Your task to perform on an android device: open app "Gmail" (install if not already installed), go to login, and select forgot password Image 0: 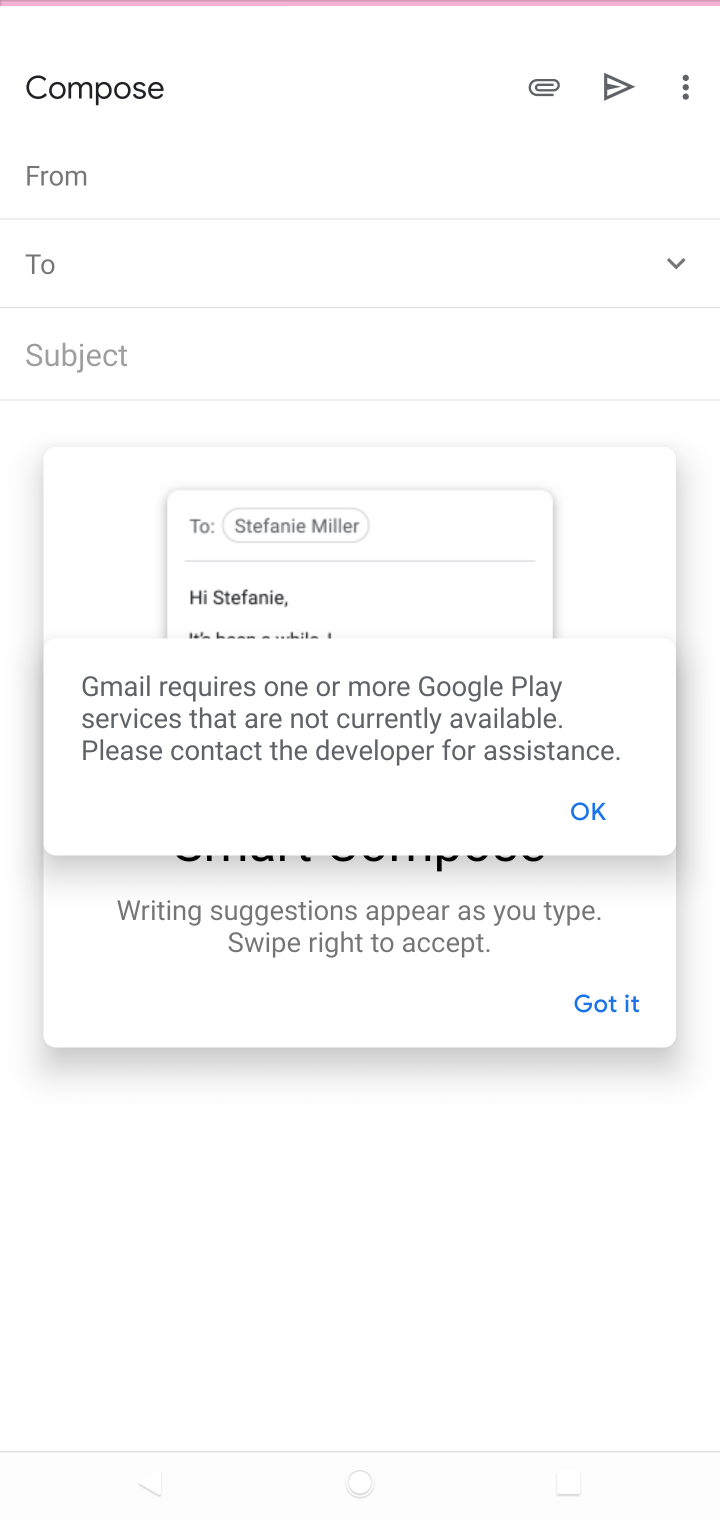
Step 0: press home button
Your task to perform on an android device: open app "Gmail" (install if not already installed), go to login, and select forgot password Image 1: 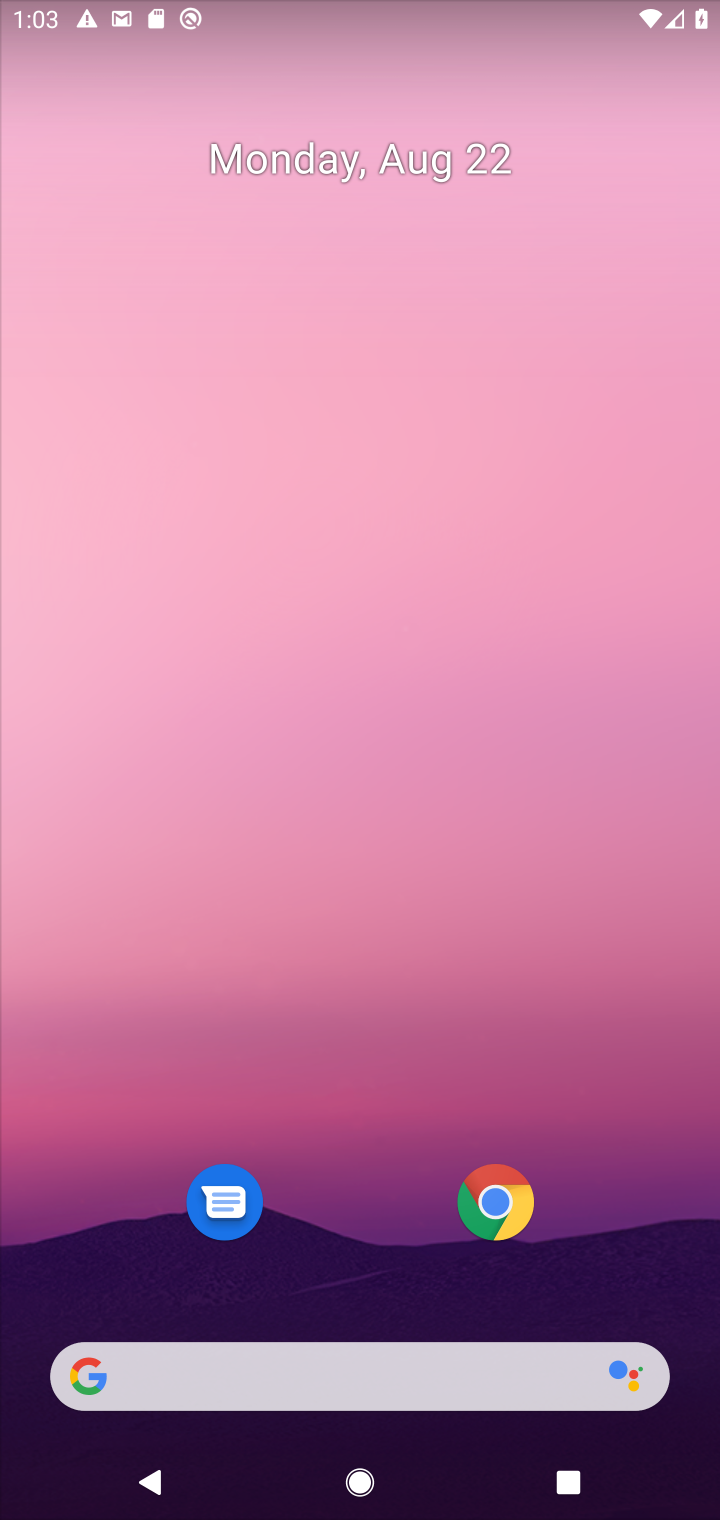
Step 1: drag from (368, 1268) to (353, 214)
Your task to perform on an android device: open app "Gmail" (install if not already installed), go to login, and select forgot password Image 2: 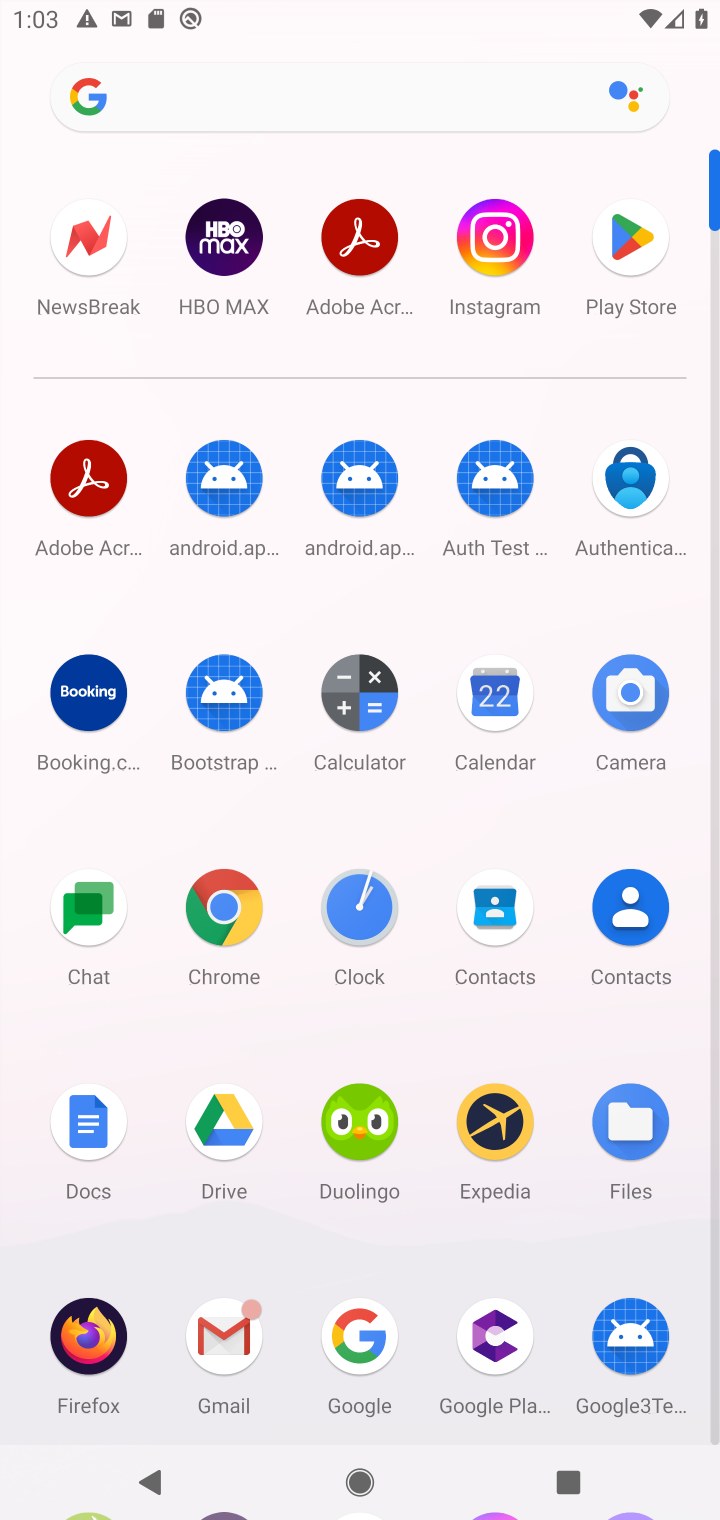
Step 2: click (224, 1336)
Your task to perform on an android device: open app "Gmail" (install if not already installed), go to login, and select forgot password Image 3: 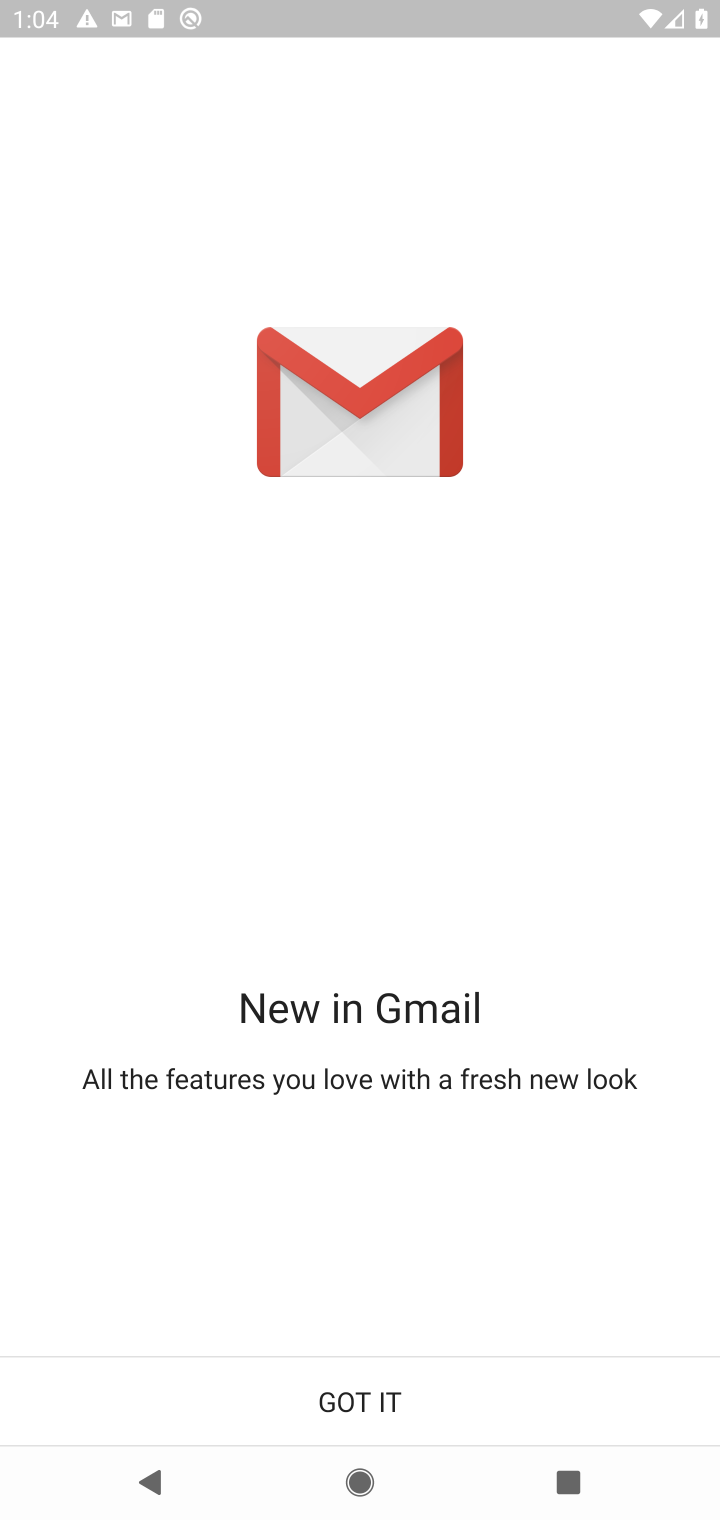
Step 3: click (349, 1391)
Your task to perform on an android device: open app "Gmail" (install if not already installed), go to login, and select forgot password Image 4: 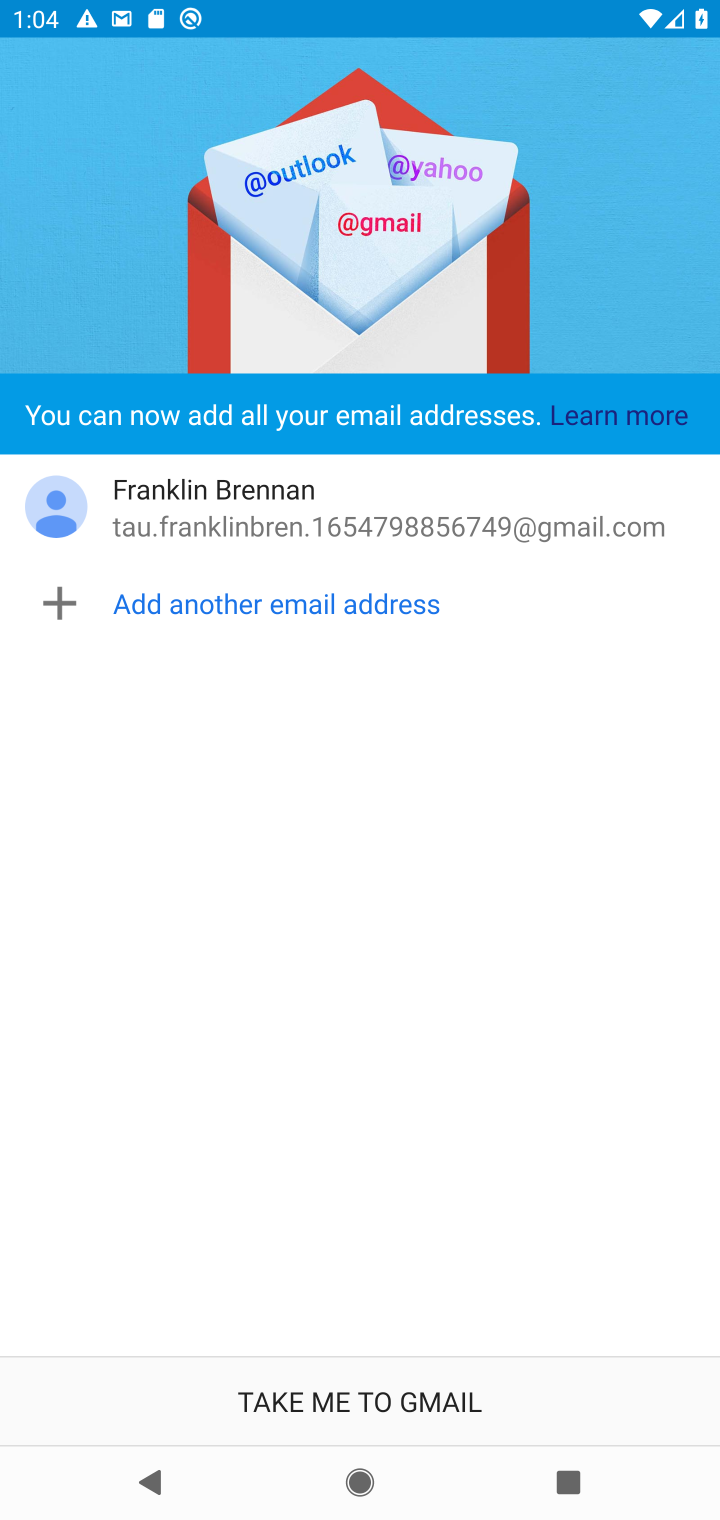
Step 4: click (349, 1391)
Your task to perform on an android device: open app "Gmail" (install if not already installed), go to login, and select forgot password Image 5: 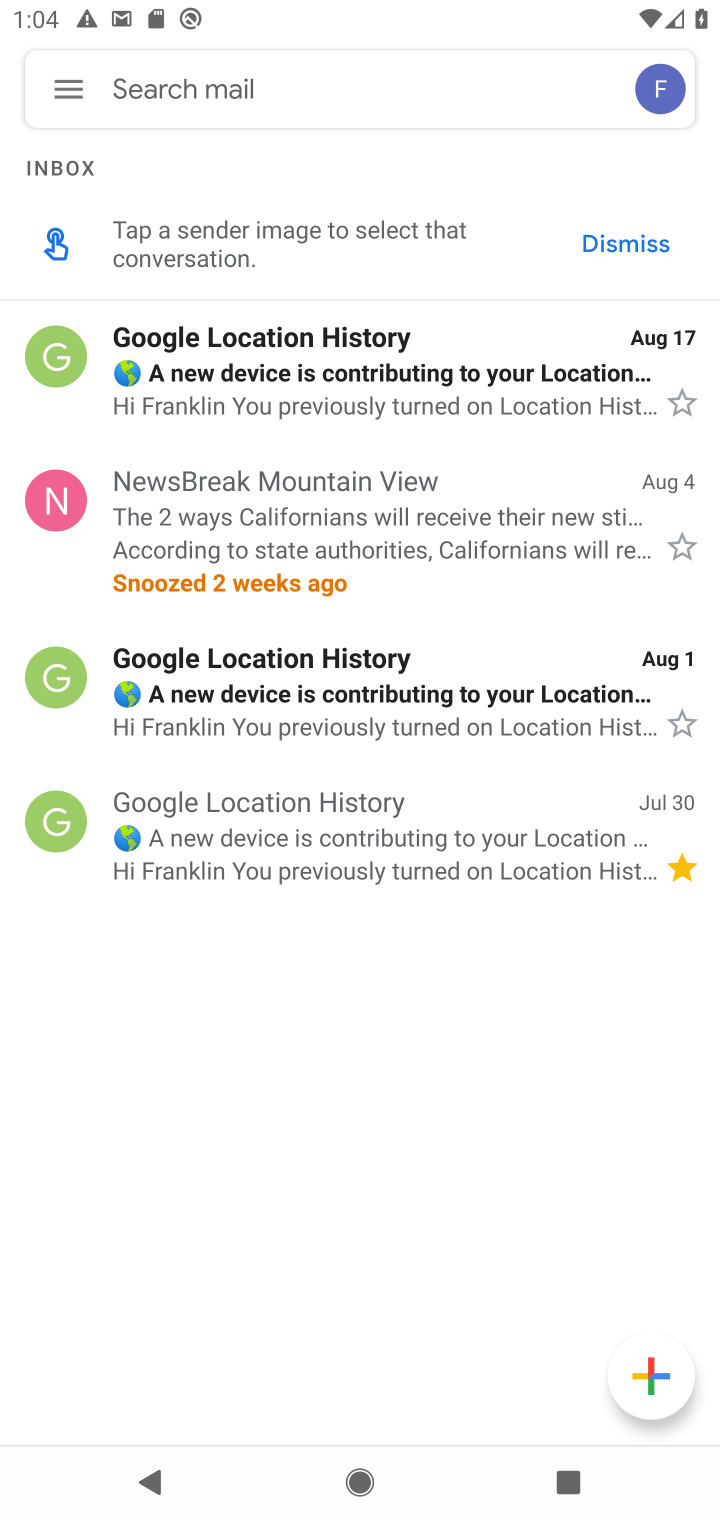
Step 5: click (658, 93)
Your task to perform on an android device: open app "Gmail" (install if not already installed), go to login, and select forgot password Image 6: 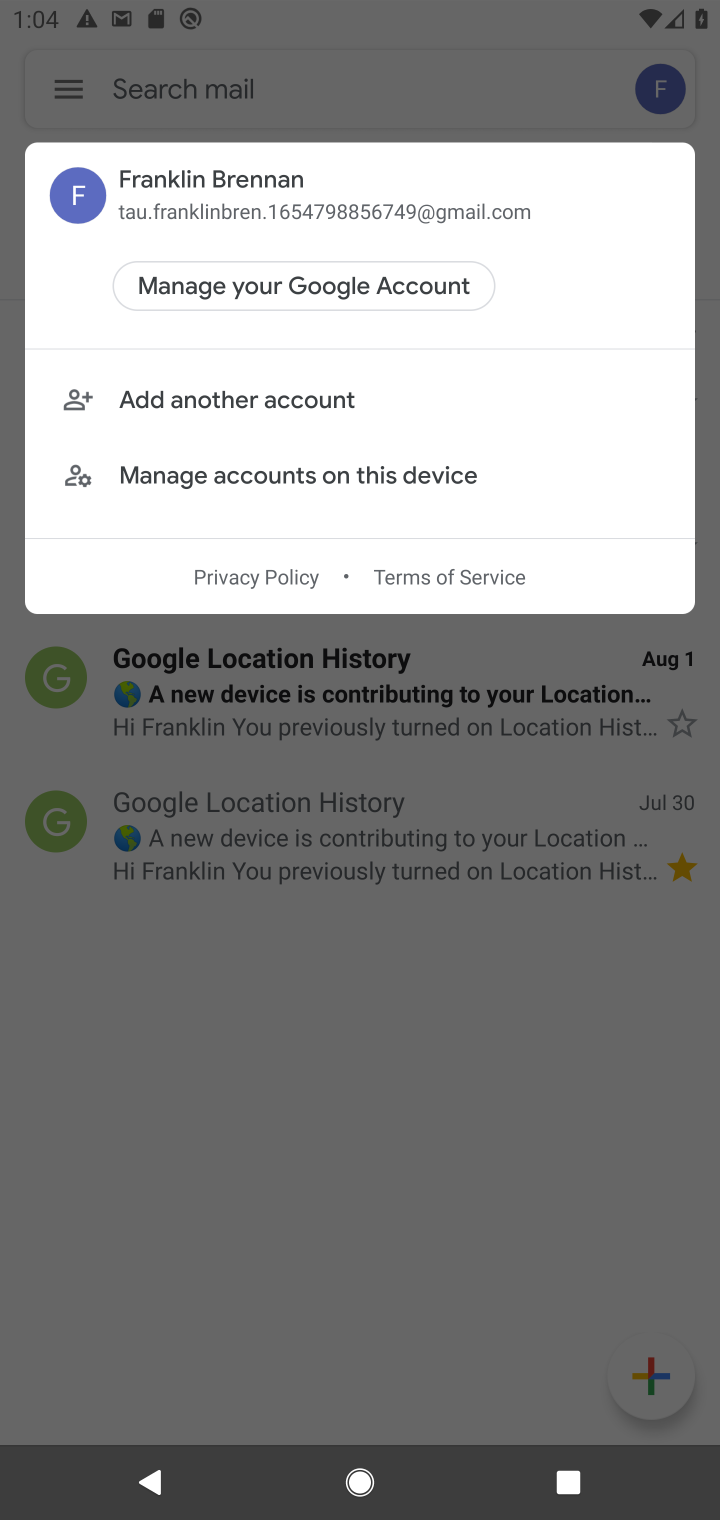
Step 6: click (277, 213)
Your task to perform on an android device: open app "Gmail" (install if not already installed), go to login, and select forgot password Image 7: 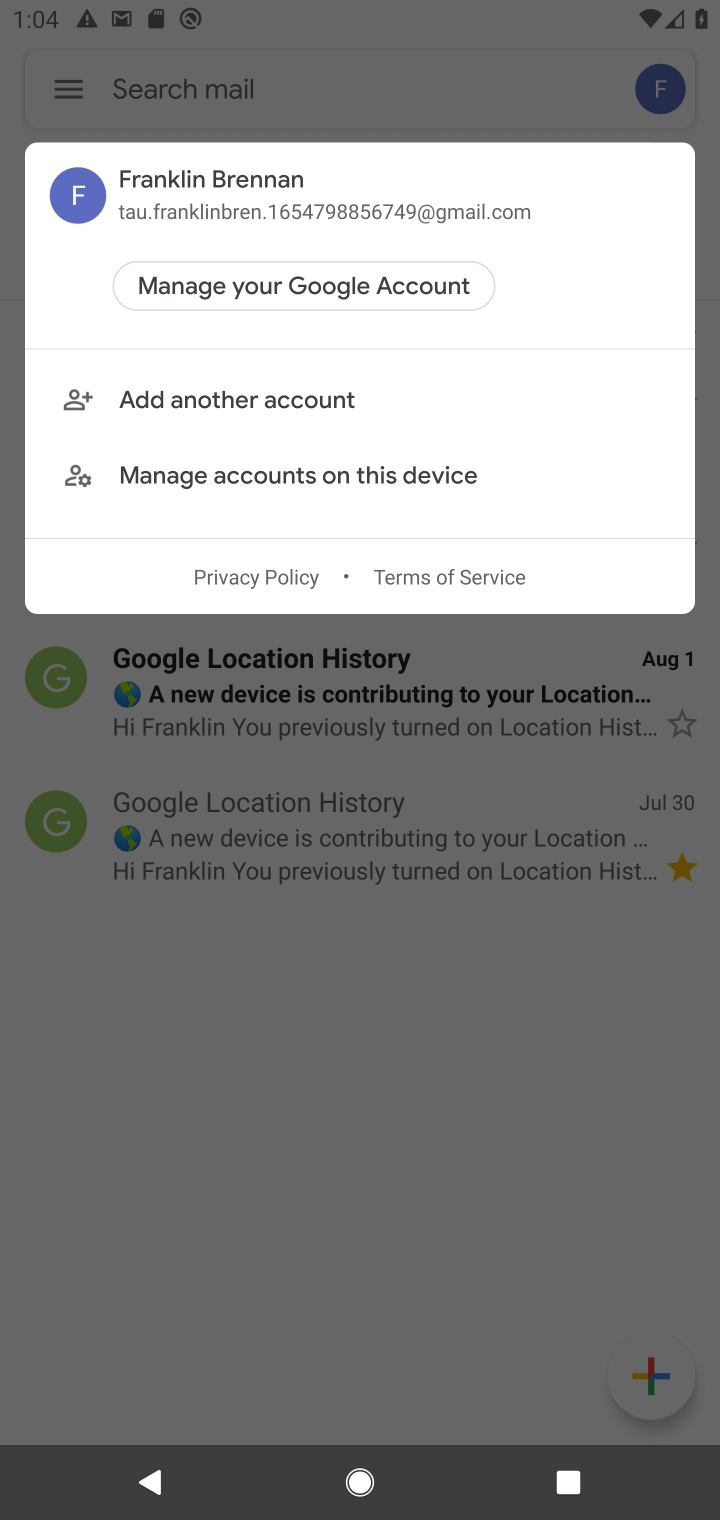
Step 7: click (213, 185)
Your task to perform on an android device: open app "Gmail" (install if not already installed), go to login, and select forgot password Image 8: 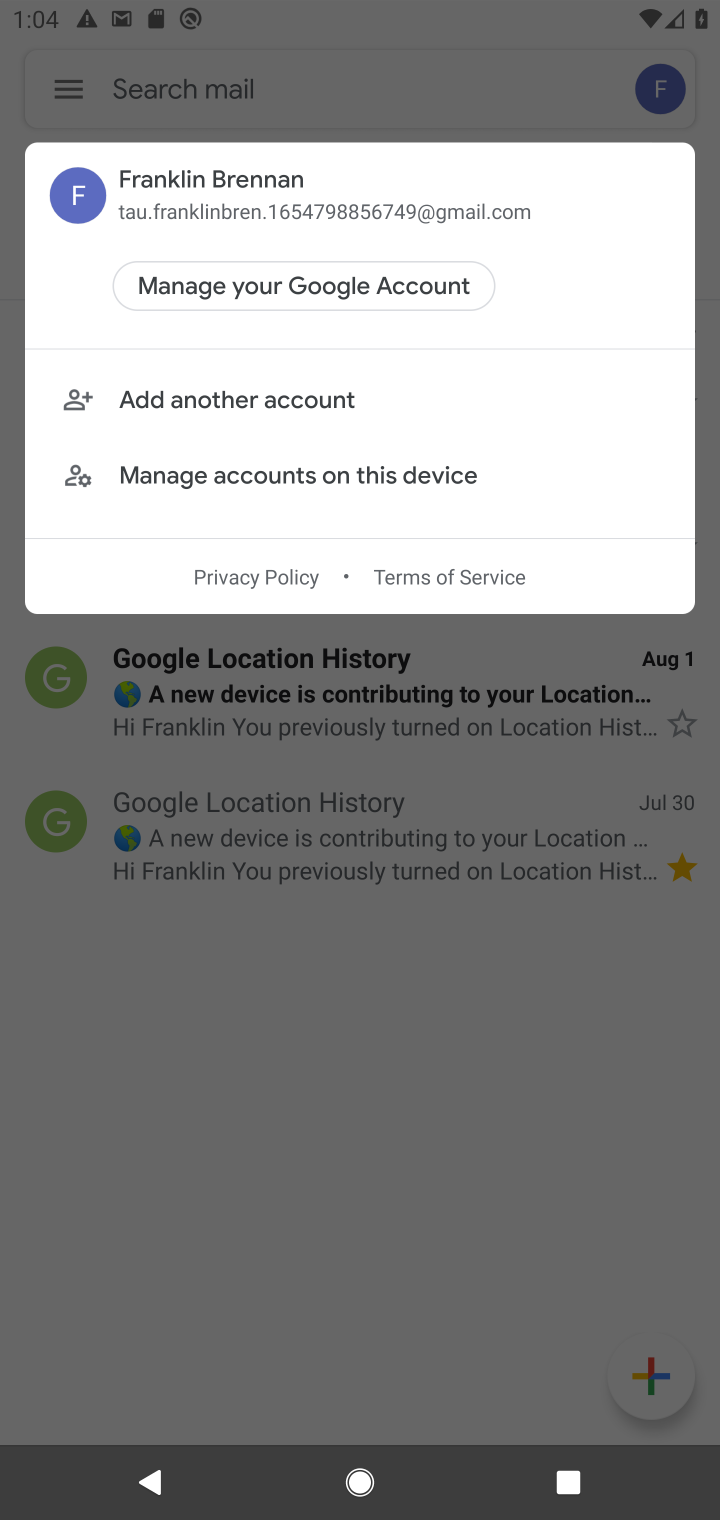
Step 8: click (275, 400)
Your task to perform on an android device: open app "Gmail" (install if not already installed), go to login, and select forgot password Image 9: 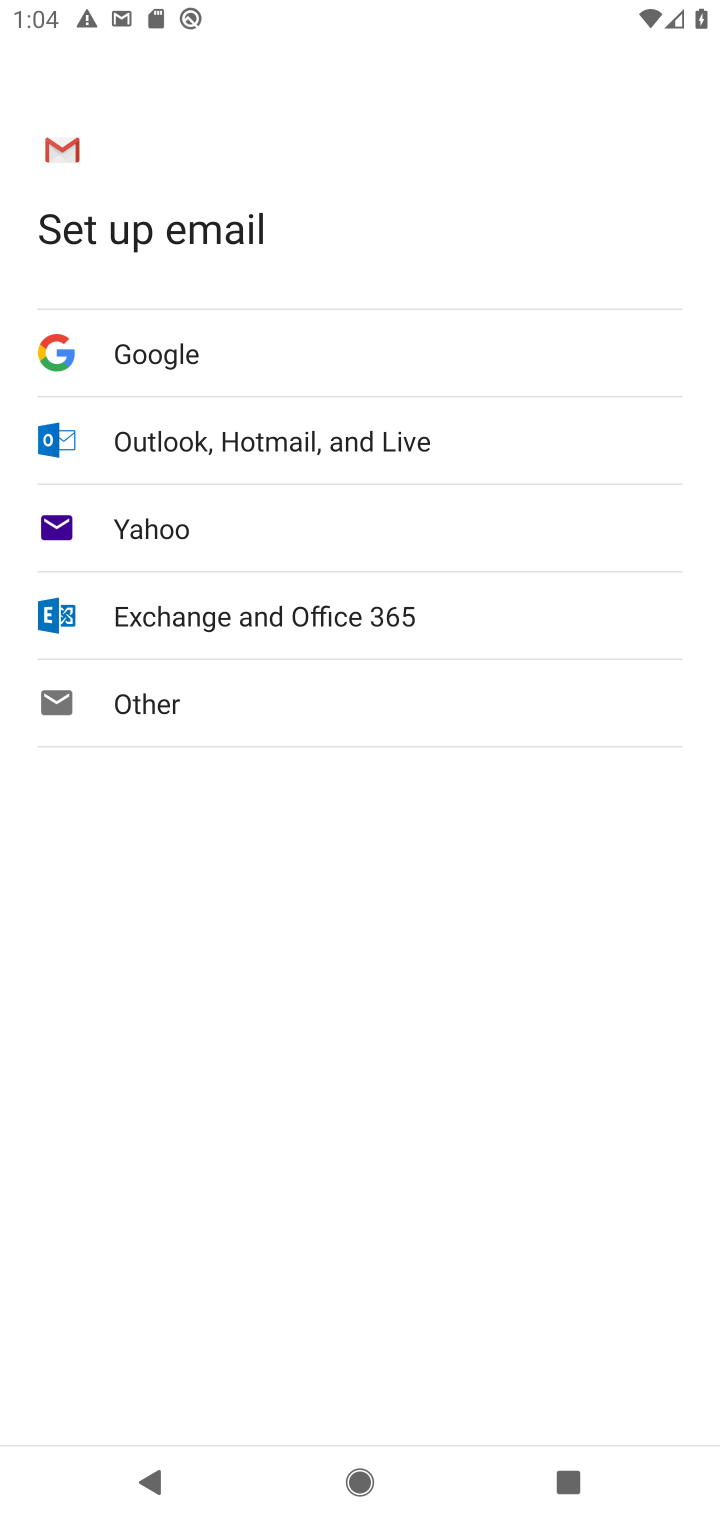
Step 9: click (135, 352)
Your task to perform on an android device: open app "Gmail" (install if not already installed), go to login, and select forgot password Image 10: 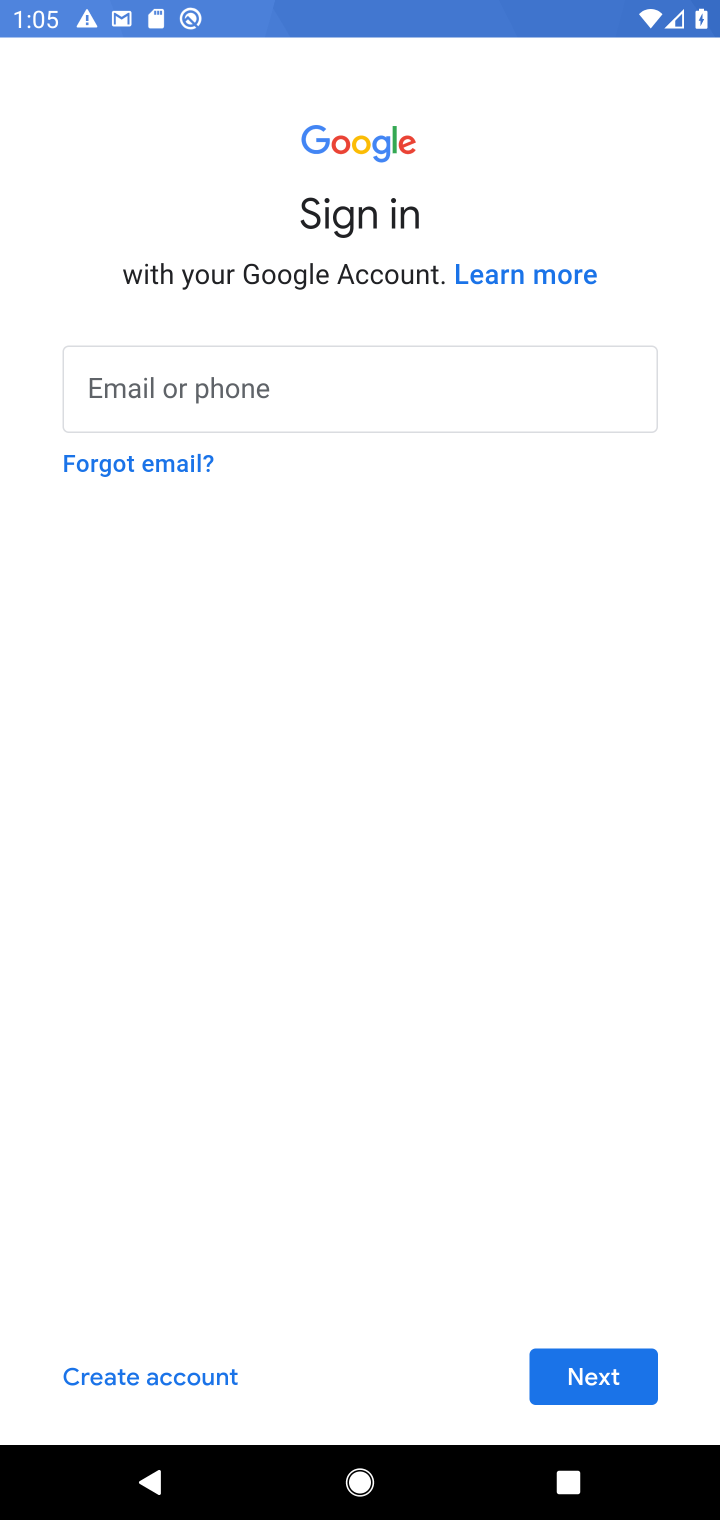
Step 10: click (160, 465)
Your task to perform on an android device: open app "Gmail" (install if not already installed), go to login, and select forgot password Image 11: 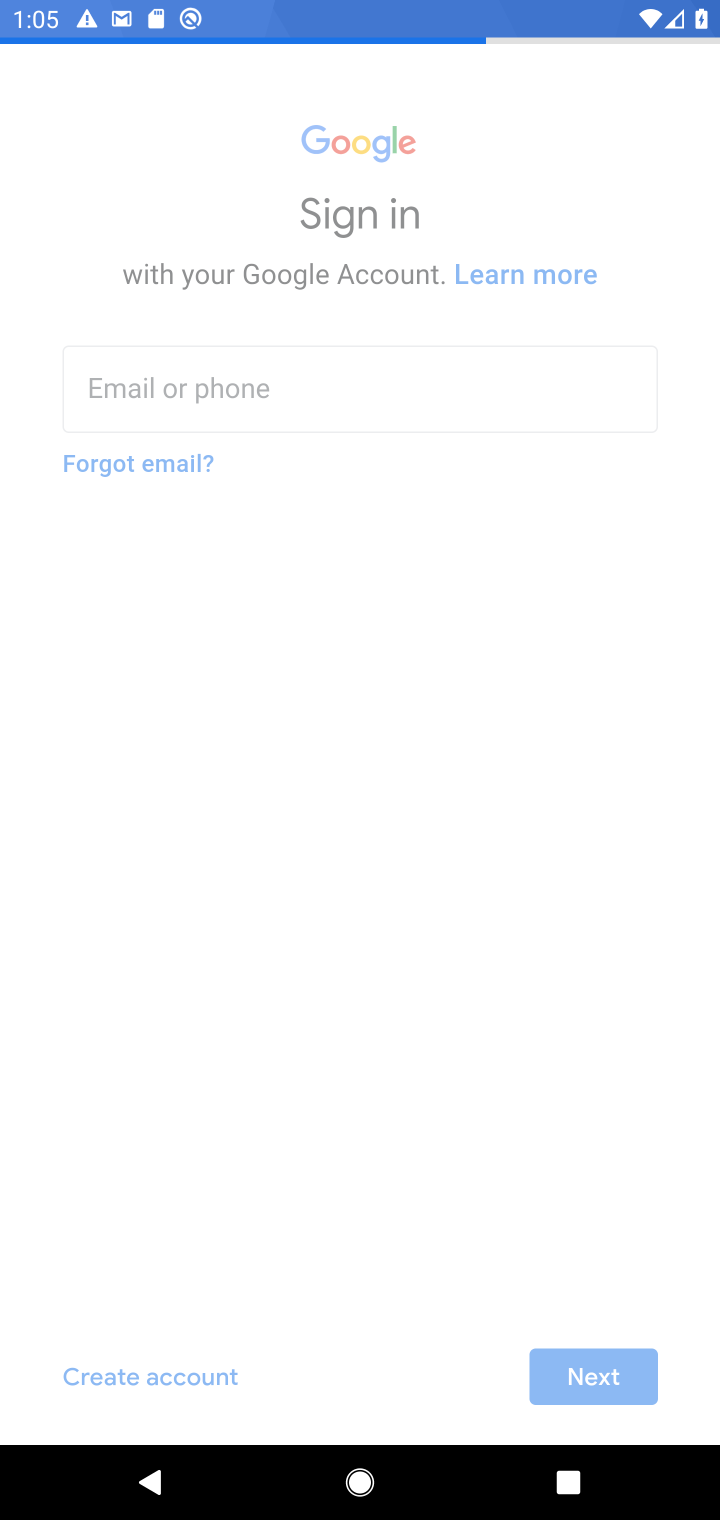
Step 11: task complete